Your task to perform on an android device: refresh tabs in the chrome app Image 0: 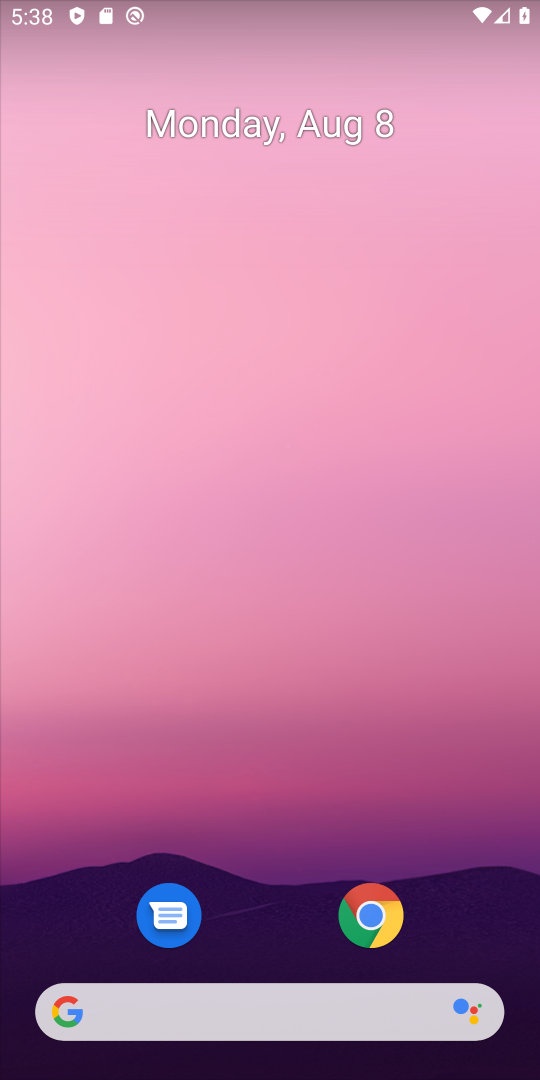
Step 0: click (362, 922)
Your task to perform on an android device: refresh tabs in the chrome app Image 1: 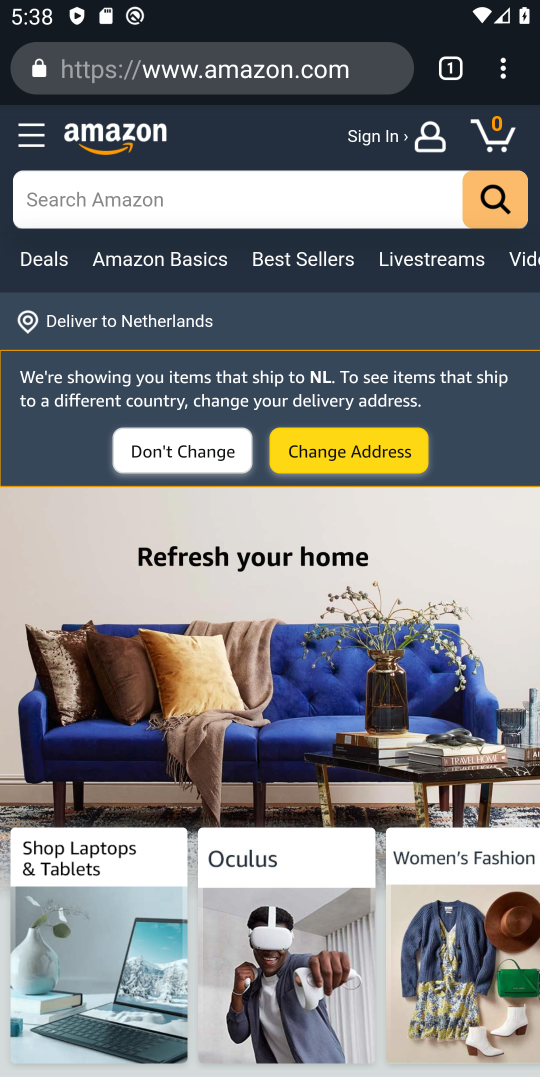
Step 1: click (505, 68)
Your task to perform on an android device: refresh tabs in the chrome app Image 2: 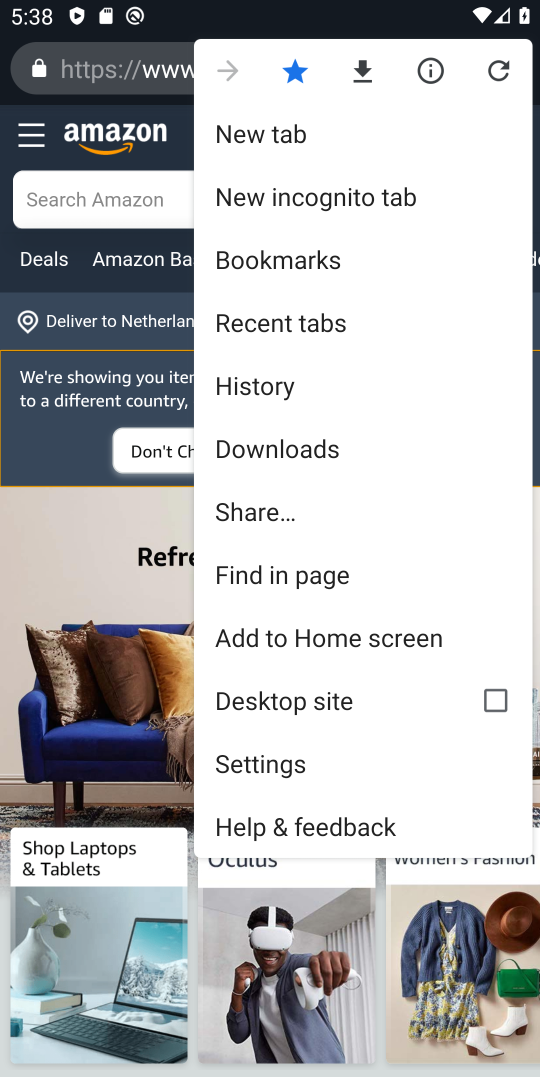
Step 2: click (503, 73)
Your task to perform on an android device: refresh tabs in the chrome app Image 3: 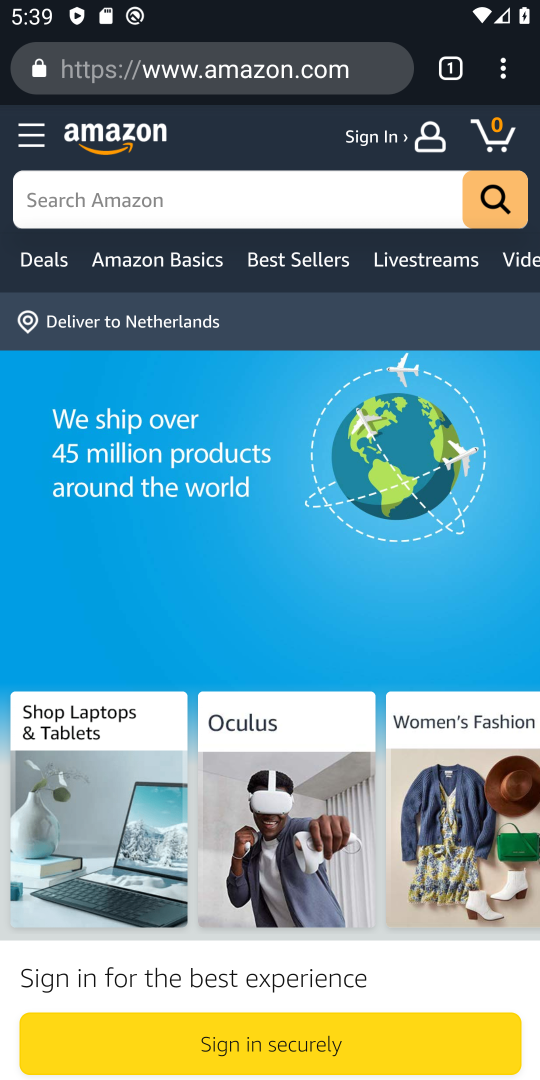
Step 3: task complete